Your task to perform on an android device: Go to ESPN.com Image 0: 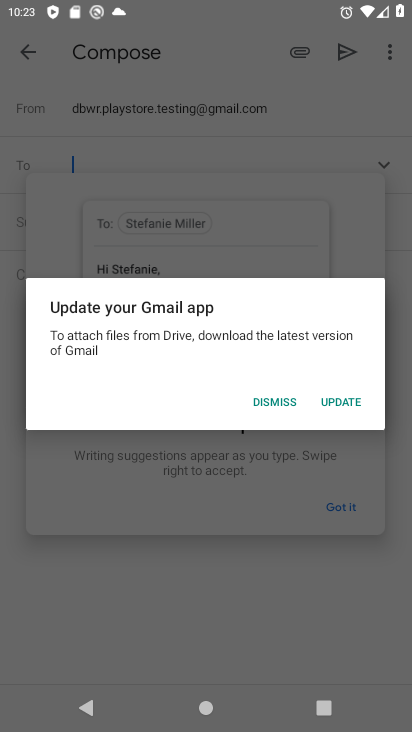
Step 0: press back button
Your task to perform on an android device: Go to ESPN.com Image 1: 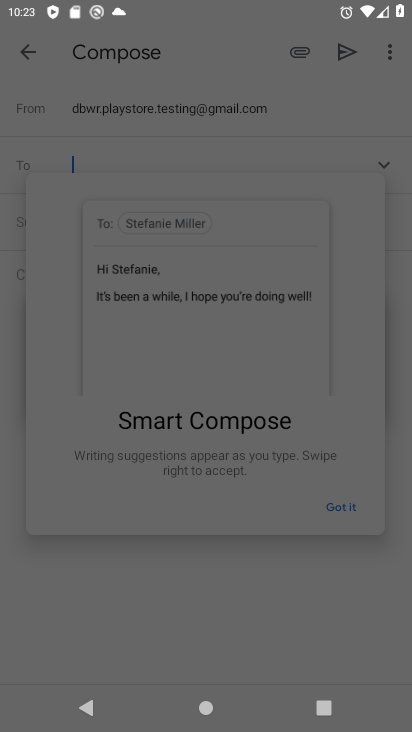
Step 1: press back button
Your task to perform on an android device: Go to ESPN.com Image 2: 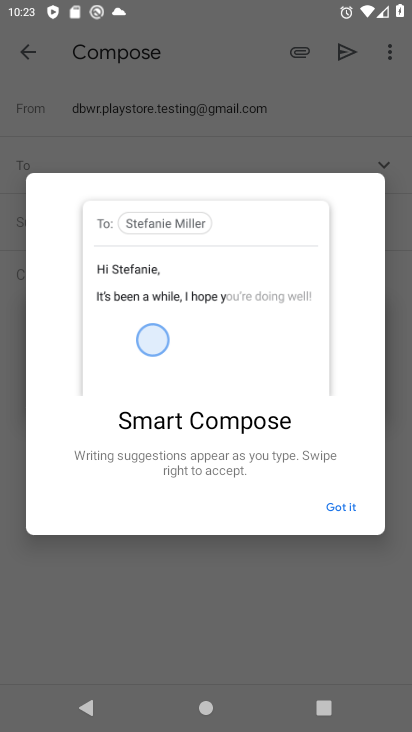
Step 2: press back button
Your task to perform on an android device: Go to ESPN.com Image 3: 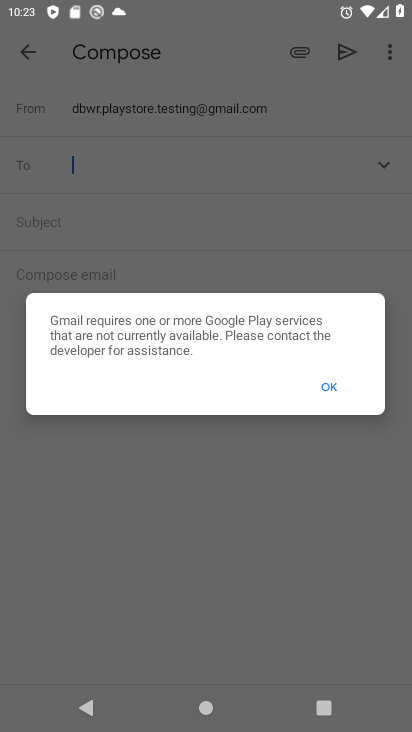
Step 3: press back button
Your task to perform on an android device: Go to ESPN.com Image 4: 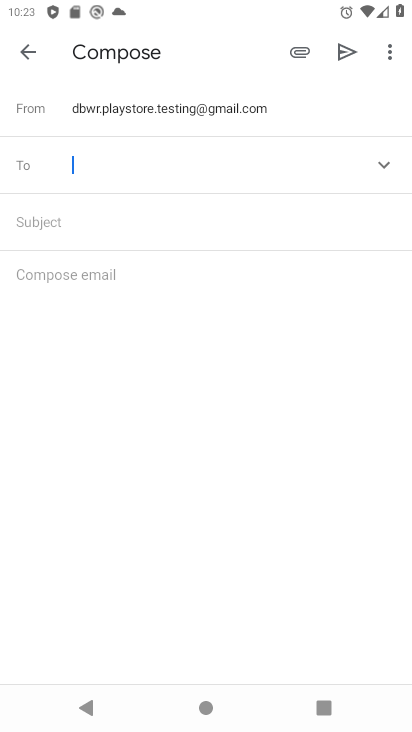
Step 4: press back button
Your task to perform on an android device: Go to ESPN.com Image 5: 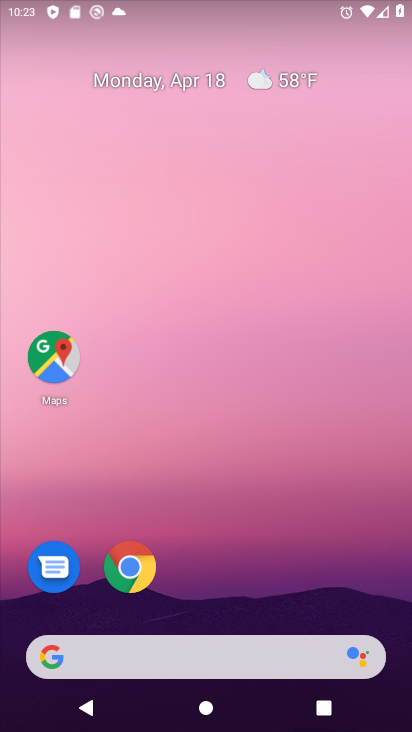
Step 5: click (125, 570)
Your task to perform on an android device: Go to ESPN.com Image 6: 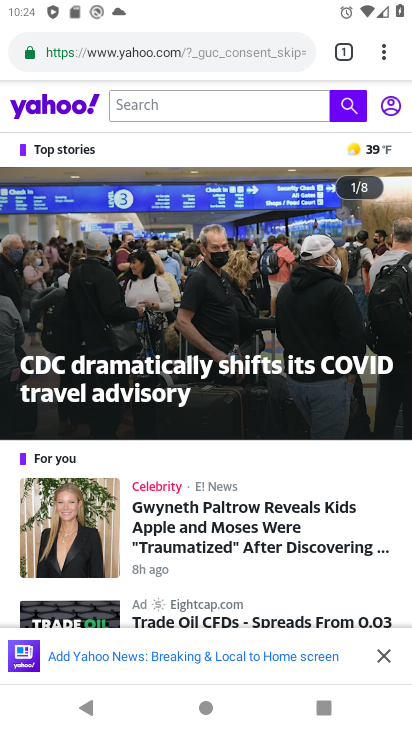
Step 6: click (125, 572)
Your task to perform on an android device: Go to ESPN.com Image 7: 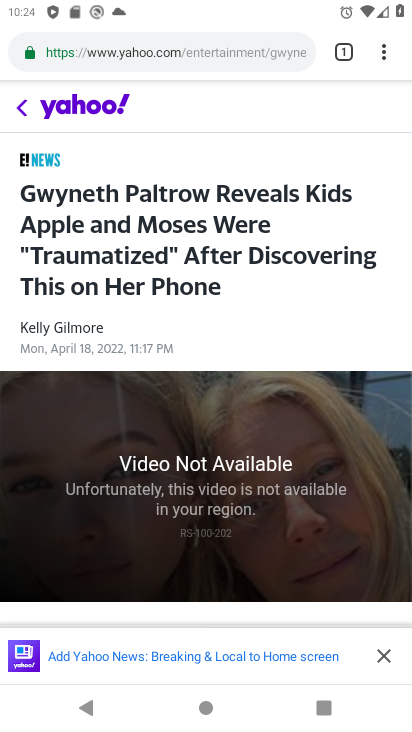
Step 7: click (381, 47)
Your task to perform on an android device: Go to ESPN.com Image 8: 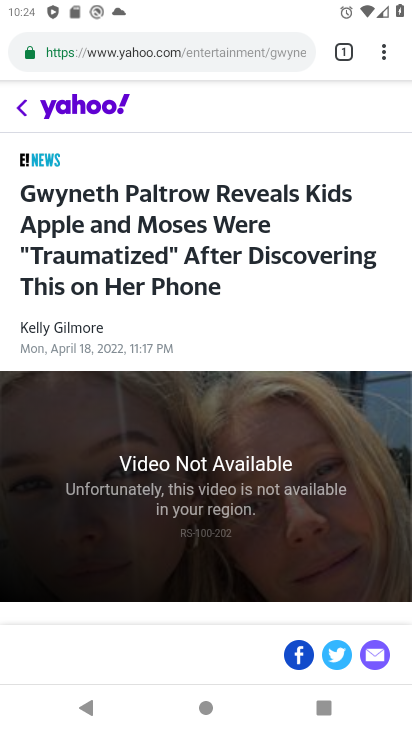
Step 8: click (381, 51)
Your task to perform on an android device: Go to ESPN.com Image 9: 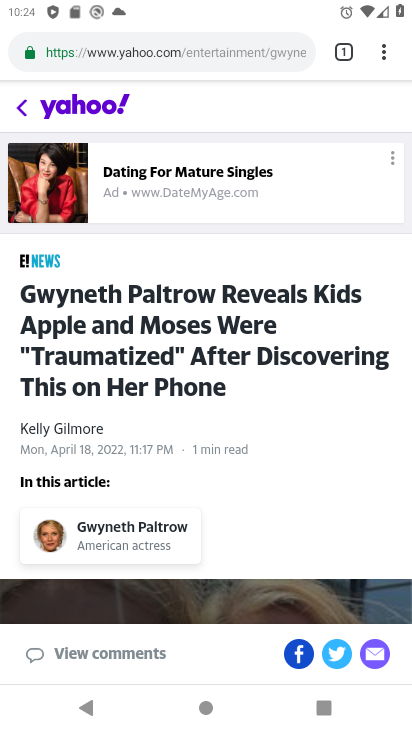
Step 9: click (386, 52)
Your task to perform on an android device: Go to ESPN.com Image 10: 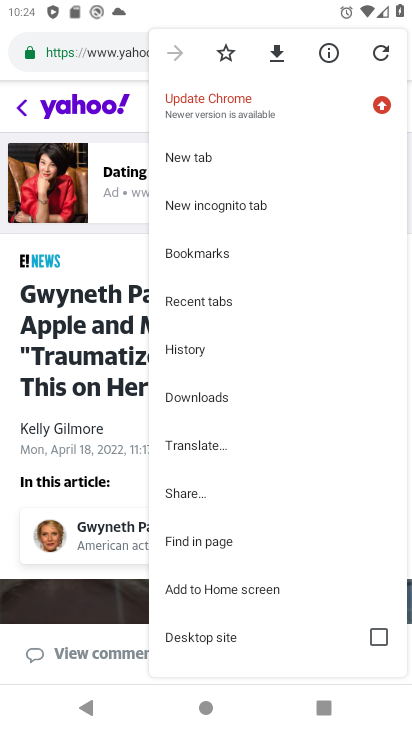
Step 10: click (200, 153)
Your task to perform on an android device: Go to ESPN.com Image 11: 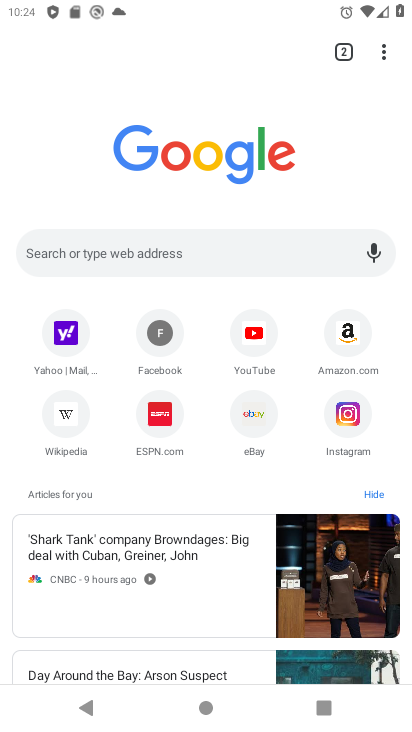
Step 11: click (155, 418)
Your task to perform on an android device: Go to ESPN.com Image 12: 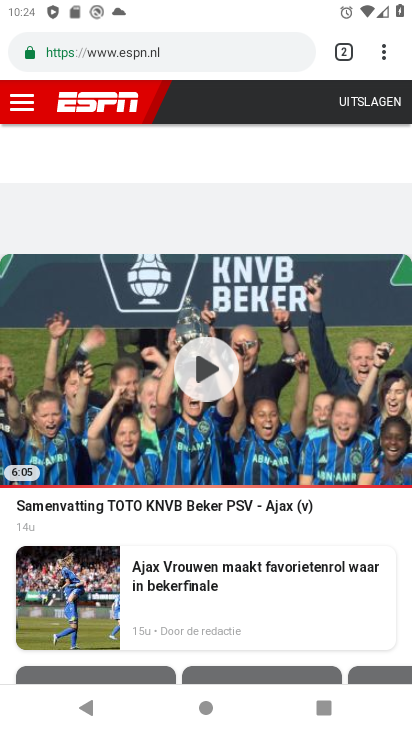
Step 12: task complete